Your task to perform on an android device: WHat are the new products by Samsung on eBay? Image 0: 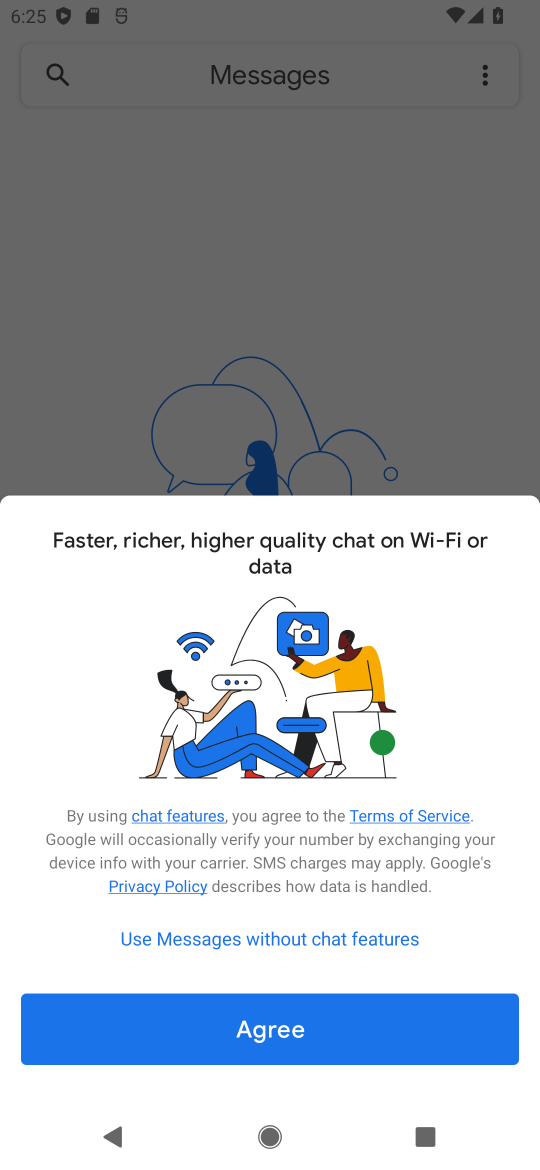
Step 0: press home button
Your task to perform on an android device: WHat are the new products by Samsung on eBay? Image 1: 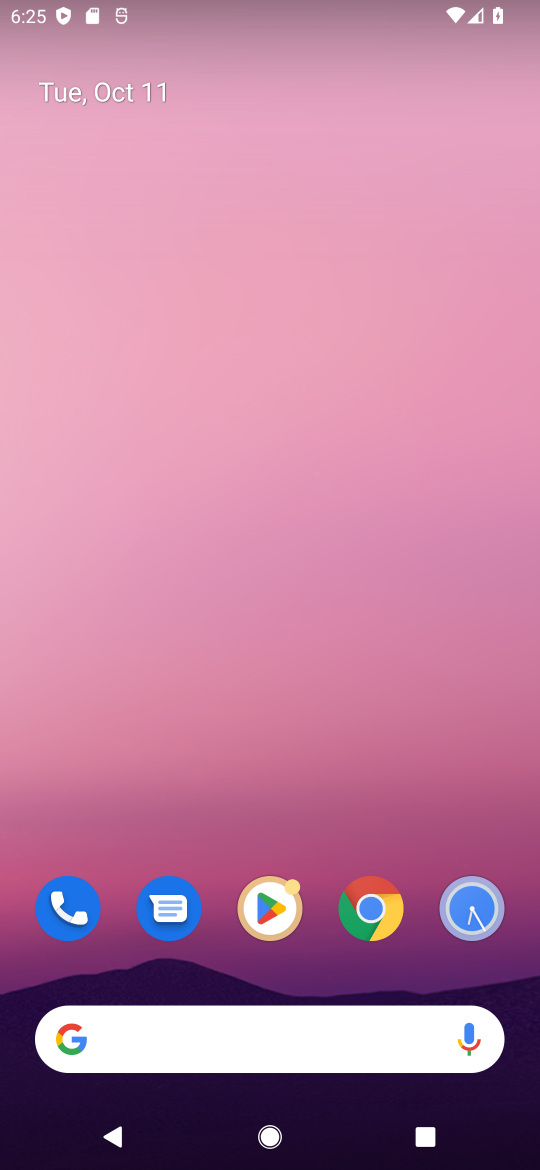
Step 1: click (333, 1026)
Your task to perform on an android device: WHat are the new products by Samsung on eBay? Image 2: 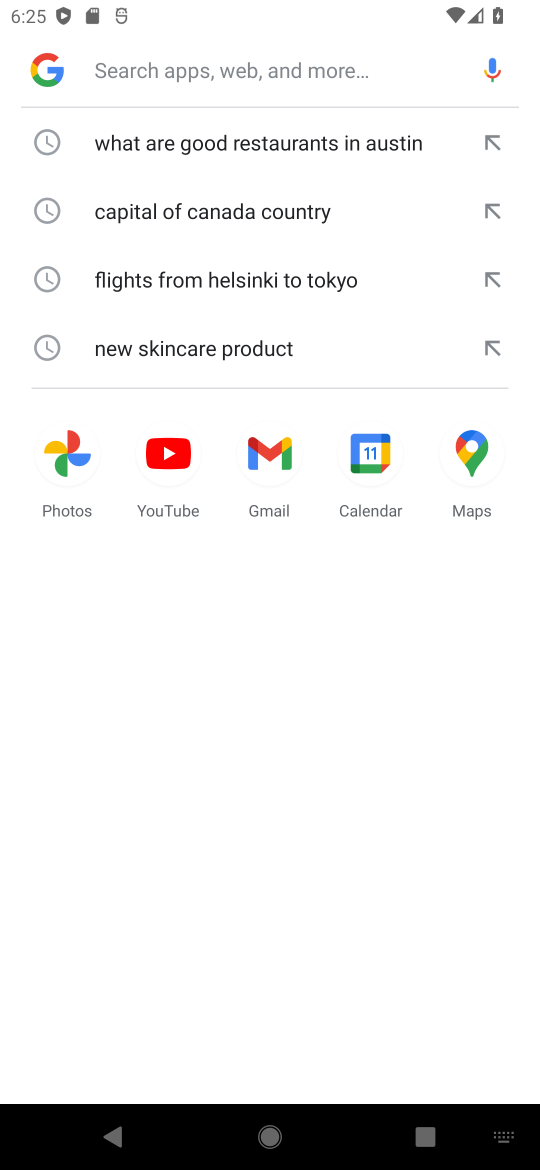
Step 2: type "WHat are the new products by Samsung on eBay"
Your task to perform on an android device: WHat are the new products by Samsung on eBay? Image 3: 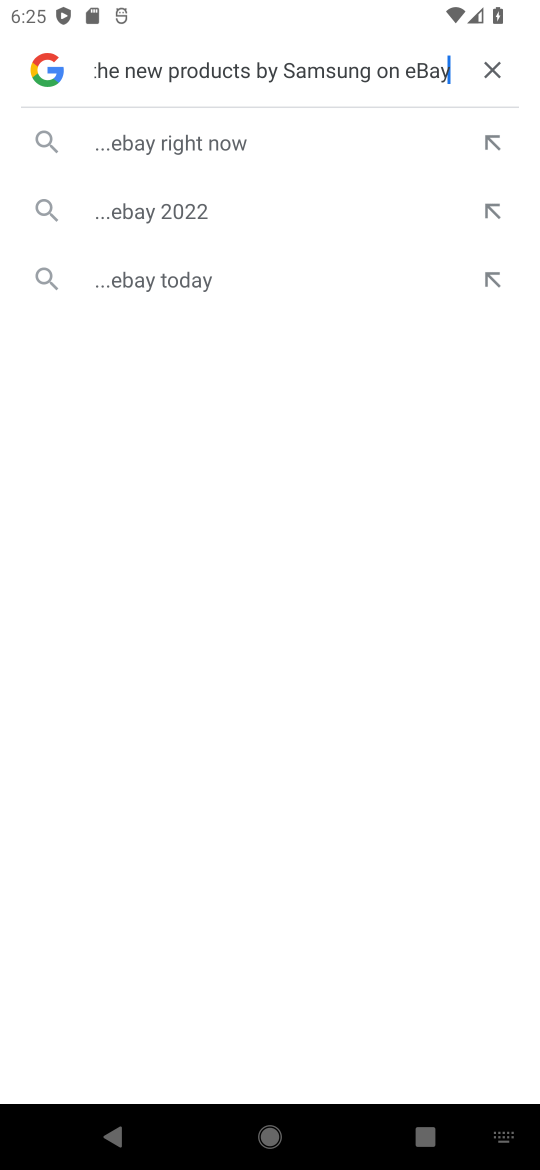
Step 3: click (235, 135)
Your task to perform on an android device: WHat are the new products by Samsung on eBay? Image 4: 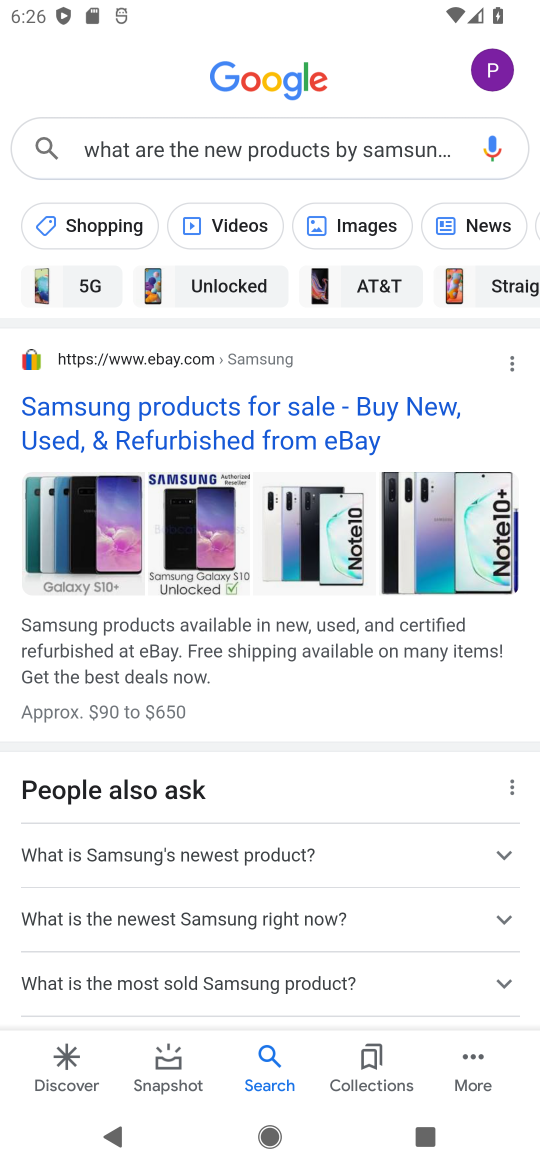
Step 4: click (254, 420)
Your task to perform on an android device: WHat are the new products by Samsung on eBay? Image 5: 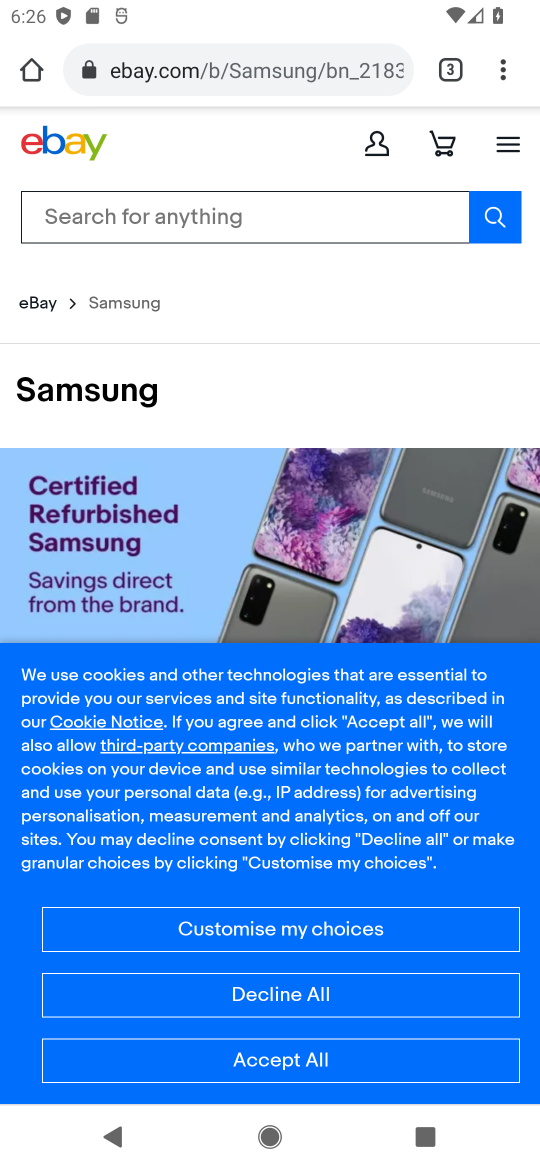
Step 5: click (296, 1069)
Your task to perform on an android device: WHat are the new products by Samsung on eBay? Image 6: 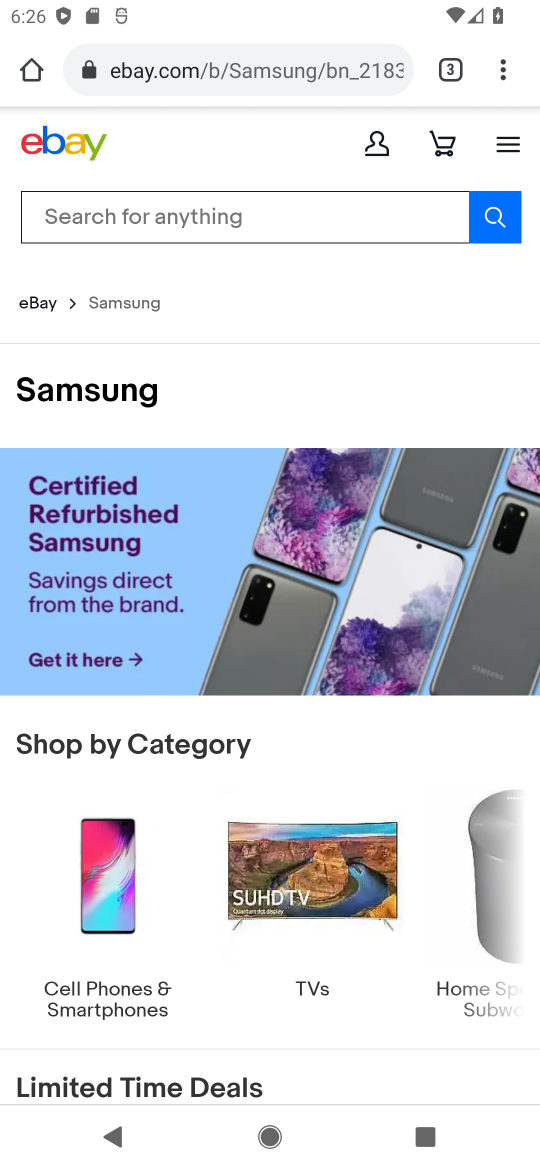
Step 6: task complete